Your task to perform on an android device: Go to Reddit.com Image 0: 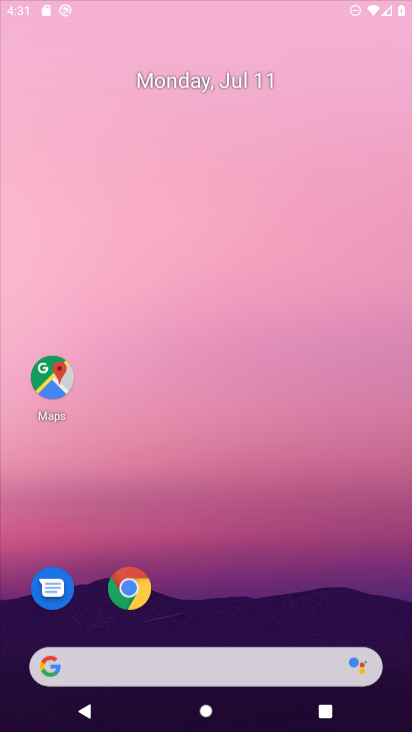
Step 0: press home button
Your task to perform on an android device: Go to Reddit.com Image 1: 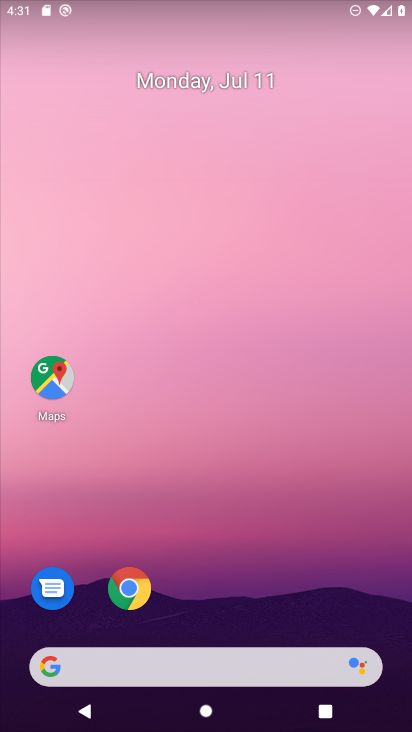
Step 1: click (57, 663)
Your task to perform on an android device: Go to Reddit.com Image 2: 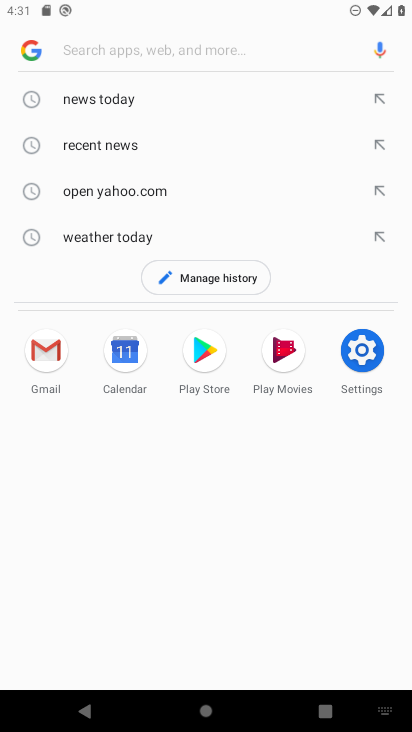
Step 2: type "Reddit.com"
Your task to perform on an android device: Go to Reddit.com Image 3: 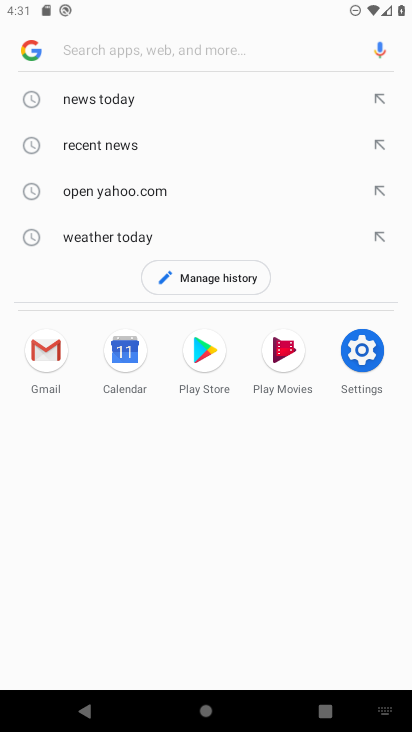
Step 3: click (134, 49)
Your task to perform on an android device: Go to Reddit.com Image 4: 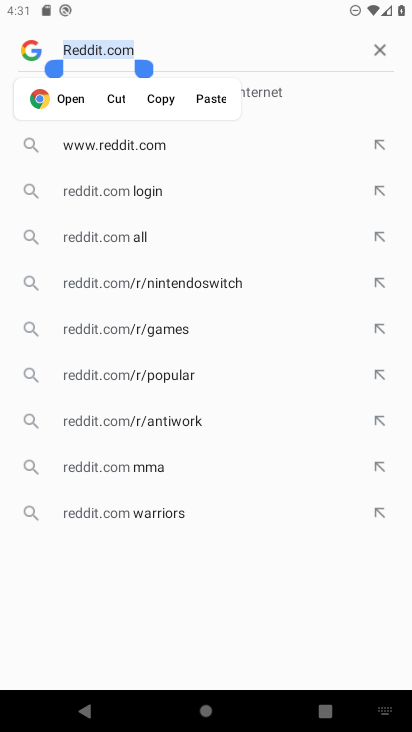
Step 4: click (99, 143)
Your task to perform on an android device: Go to Reddit.com Image 5: 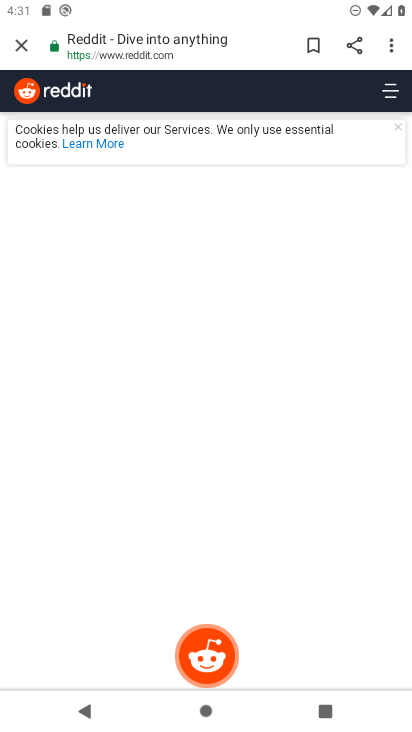
Step 5: task complete